Your task to perform on an android device: Go to battery settings Image 0: 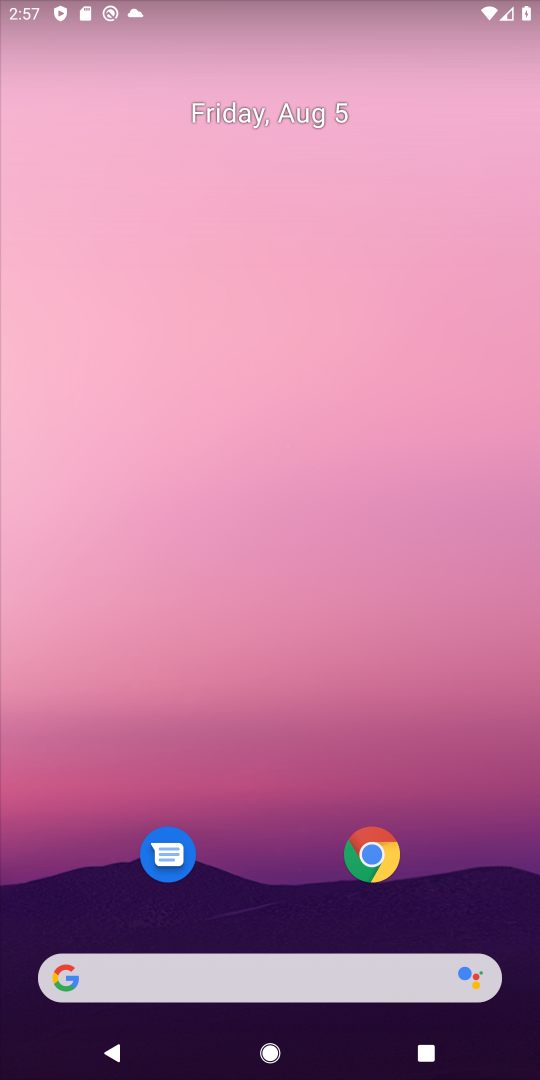
Step 0: drag from (27, 1004) to (192, 366)
Your task to perform on an android device: Go to battery settings Image 1: 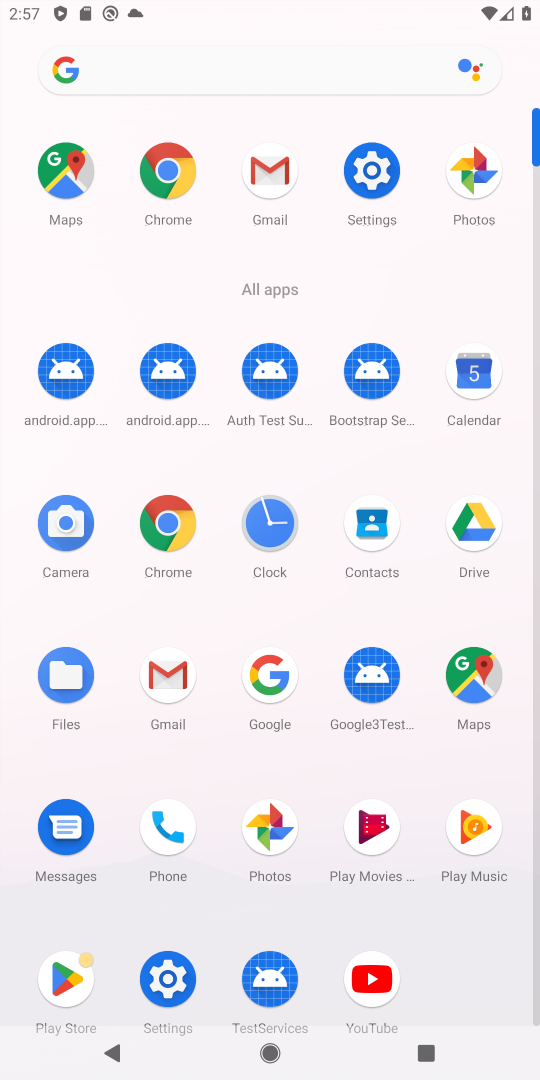
Step 1: click (173, 979)
Your task to perform on an android device: Go to battery settings Image 2: 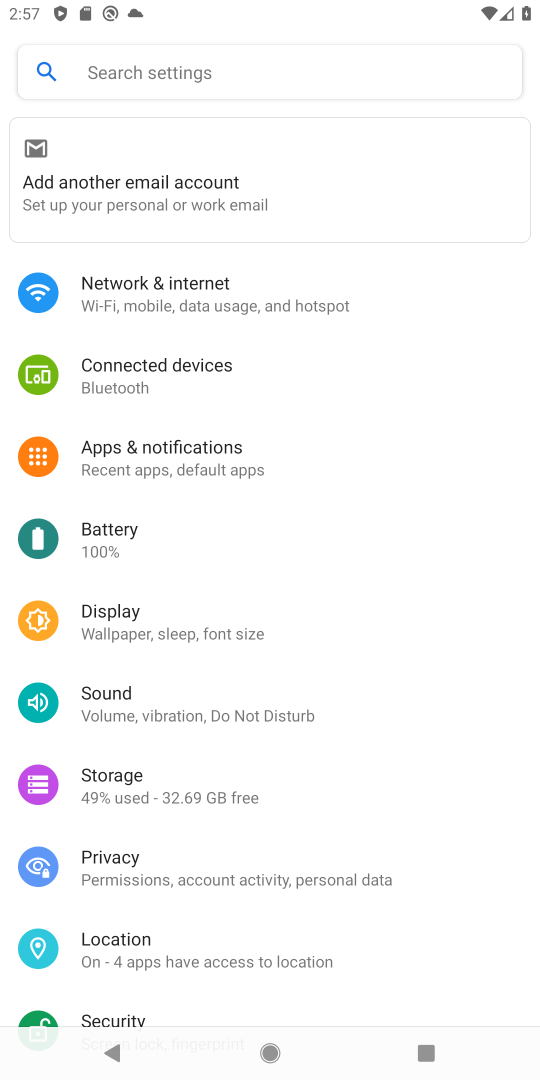
Step 2: click (150, 552)
Your task to perform on an android device: Go to battery settings Image 3: 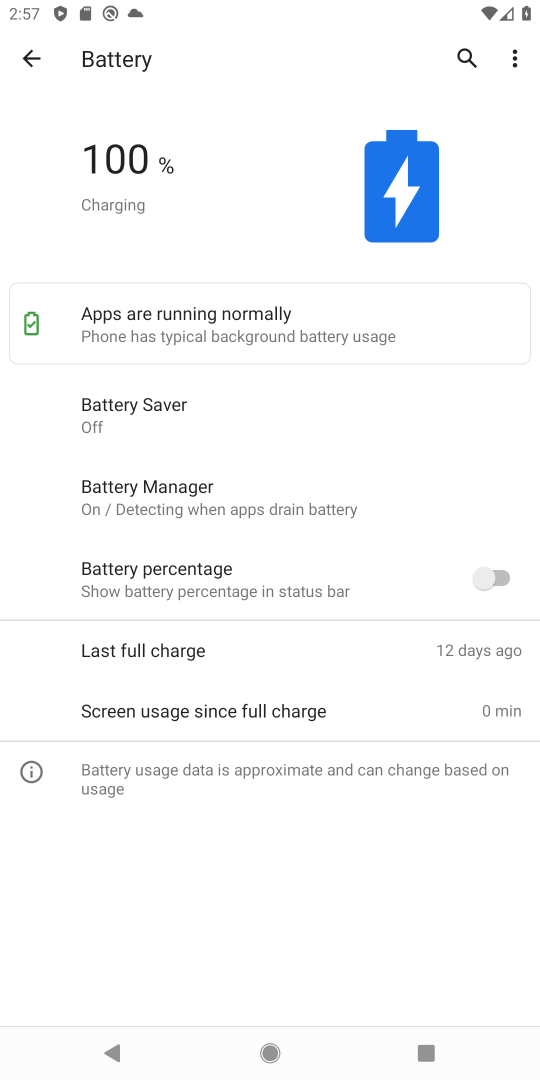
Step 3: task complete